Your task to perform on an android device: When is my next meeting? Image 0: 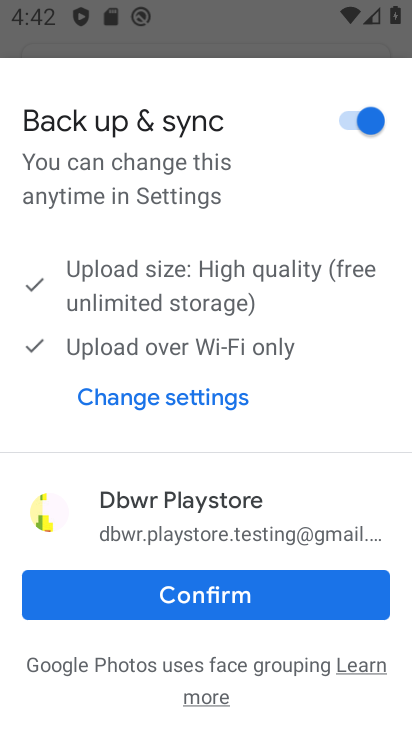
Step 0: press home button
Your task to perform on an android device: When is my next meeting? Image 1: 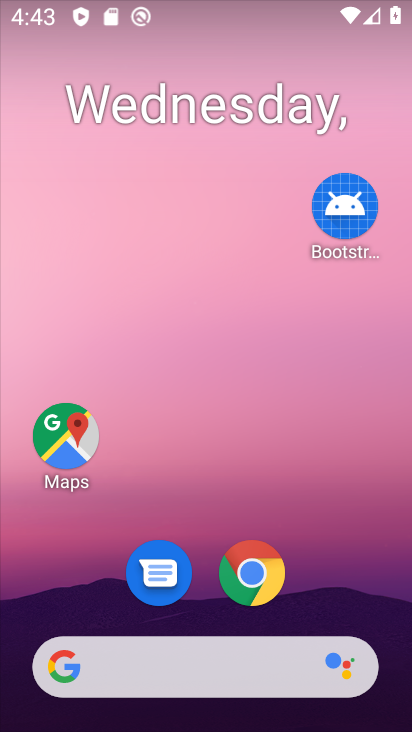
Step 1: drag from (233, 505) to (357, 92)
Your task to perform on an android device: When is my next meeting? Image 2: 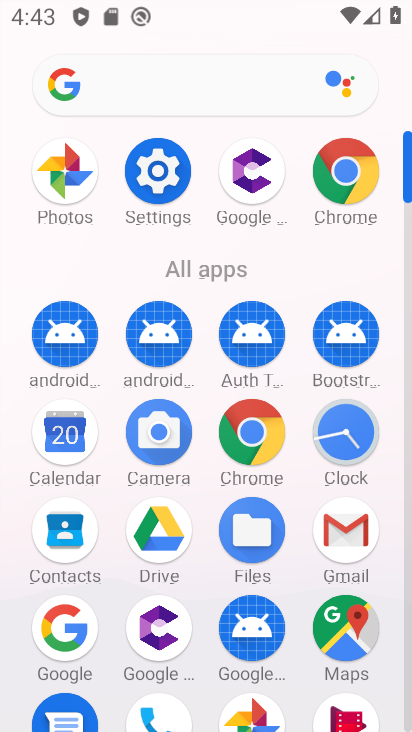
Step 2: click (45, 436)
Your task to perform on an android device: When is my next meeting? Image 3: 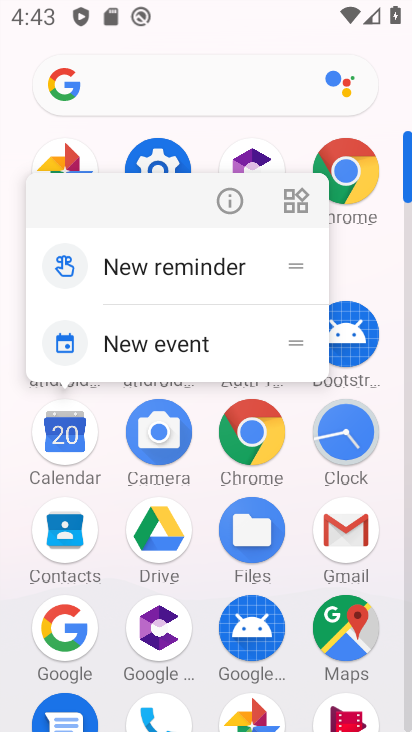
Step 3: click (55, 431)
Your task to perform on an android device: When is my next meeting? Image 4: 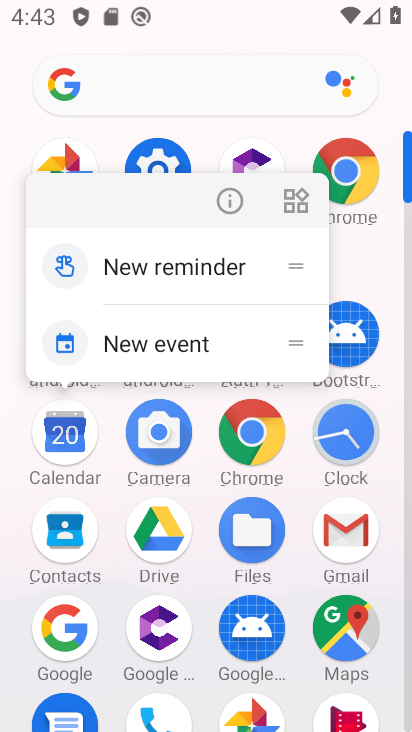
Step 4: click (55, 431)
Your task to perform on an android device: When is my next meeting? Image 5: 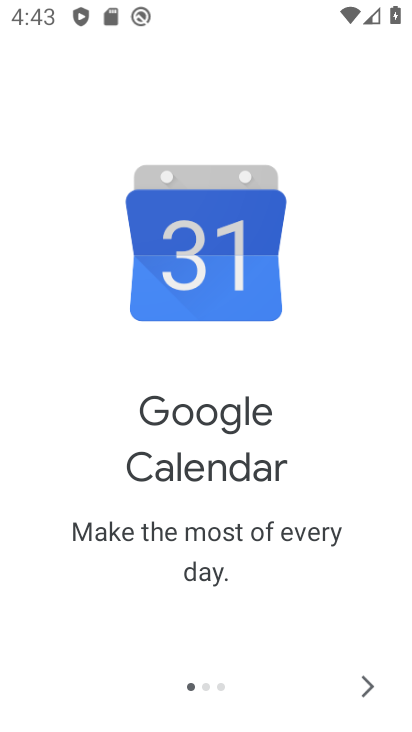
Step 5: click (367, 680)
Your task to perform on an android device: When is my next meeting? Image 6: 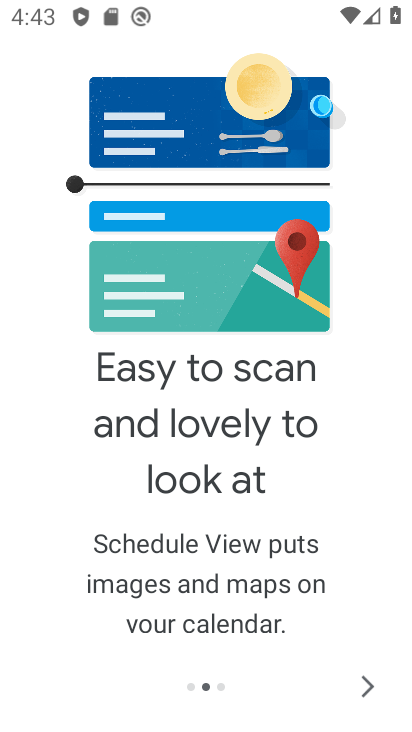
Step 6: click (367, 680)
Your task to perform on an android device: When is my next meeting? Image 7: 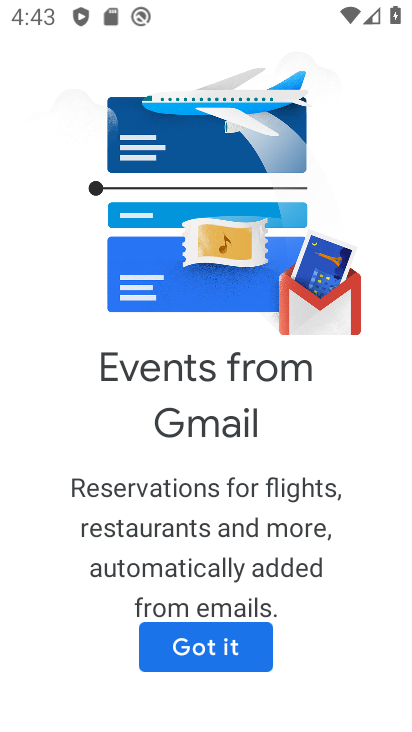
Step 7: click (173, 644)
Your task to perform on an android device: When is my next meeting? Image 8: 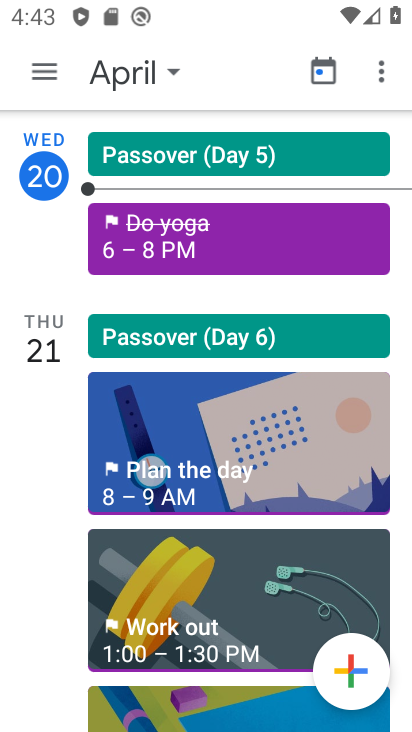
Step 8: click (143, 76)
Your task to perform on an android device: When is my next meeting? Image 9: 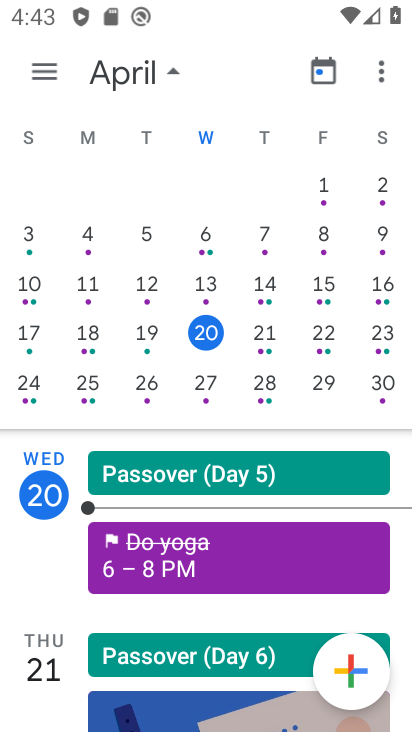
Step 9: click (208, 331)
Your task to perform on an android device: When is my next meeting? Image 10: 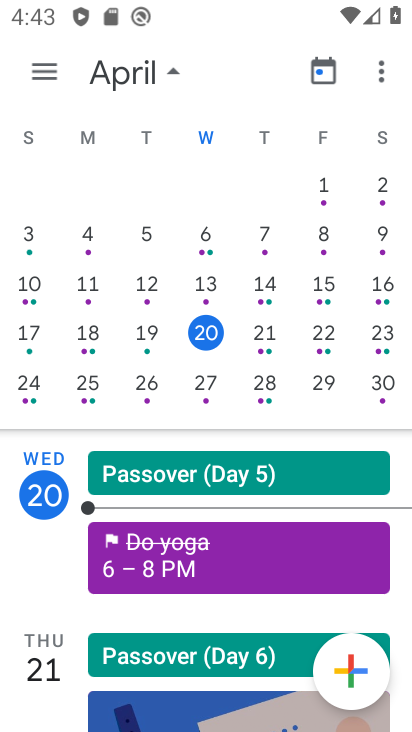
Step 10: drag from (219, 506) to (283, 305)
Your task to perform on an android device: When is my next meeting? Image 11: 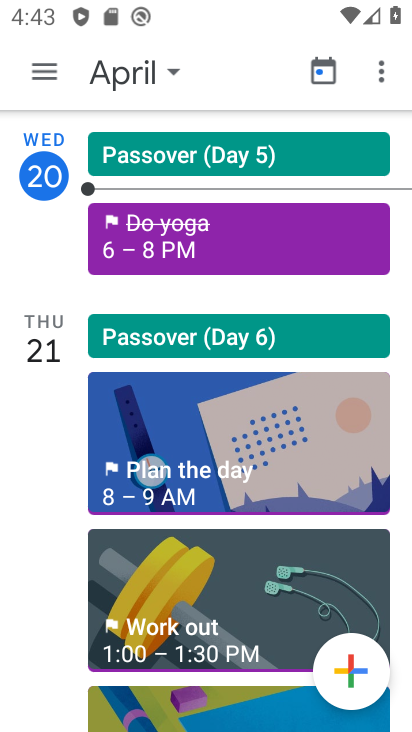
Step 11: click (33, 71)
Your task to perform on an android device: When is my next meeting? Image 12: 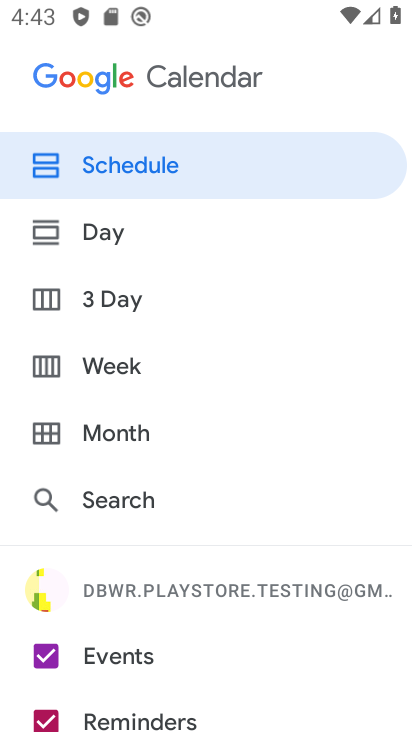
Step 12: task complete